Your task to perform on an android device: change keyboard looks Image 0: 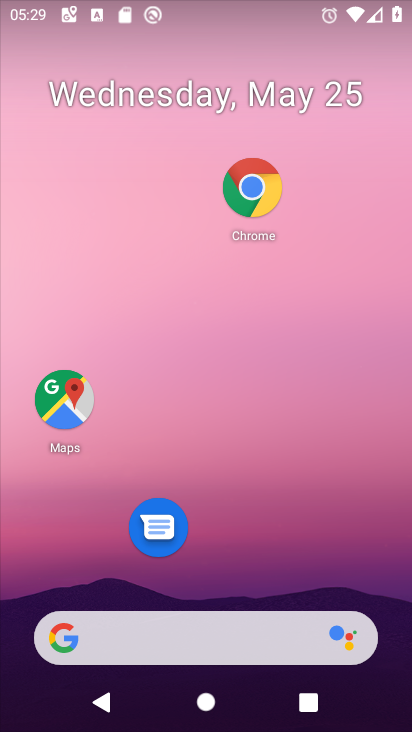
Step 0: drag from (311, 569) to (244, 85)
Your task to perform on an android device: change keyboard looks Image 1: 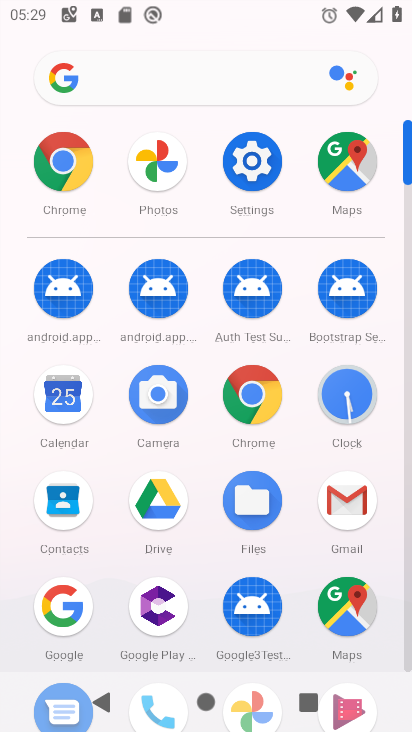
Step 1: click (236, 172)
Your task to perform on an android device: change keyboard looks Image 2: 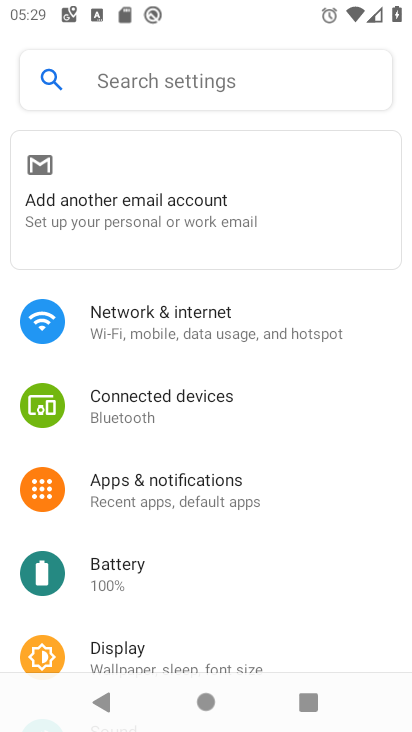
Step 2: drag from (284, 611) to (227, 56)
Your task to perform on an android device: change keyboard looks Image 3: 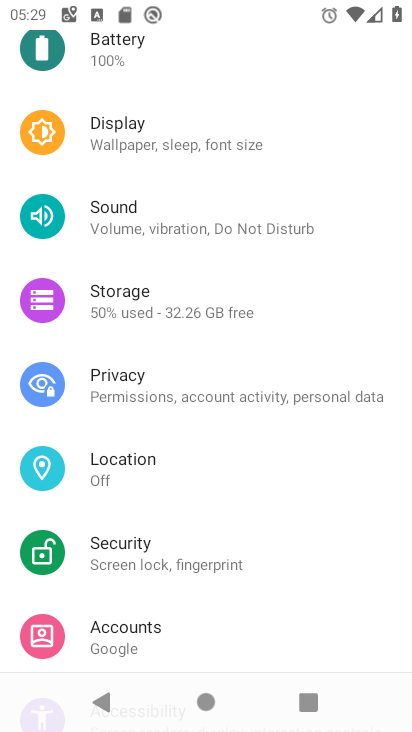
Step 3: drag from (179, 643) to (249, 187)
Your task to perform on an android device: change keyboard looks Image 4: 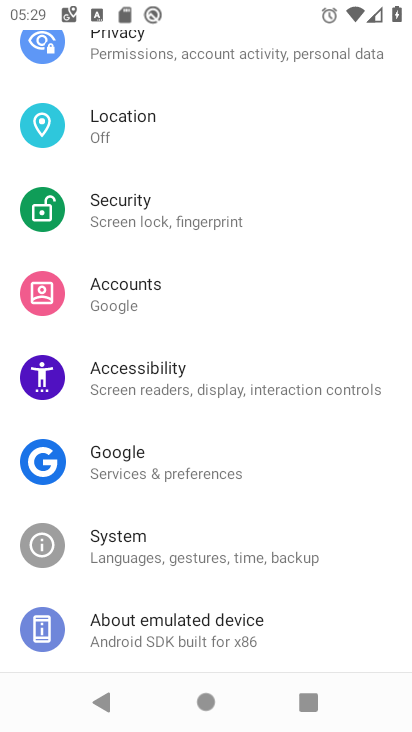
Step 4: click (154, 532)
Your task to perform on an android device: change keyboard looks Image 5: 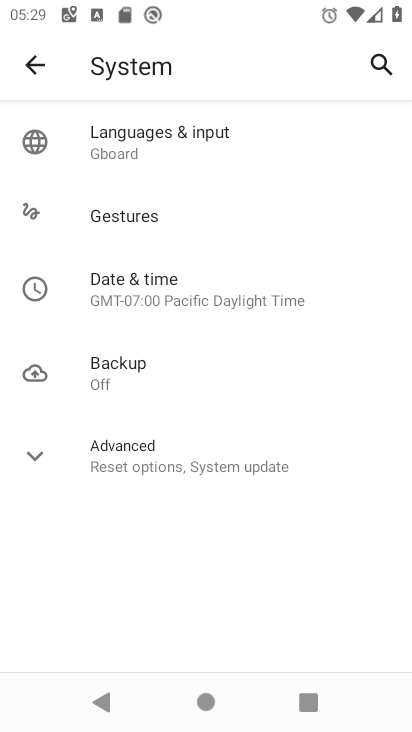
Step 5: click (159, 140)
Your task to perform on an android device: change keyboard looks Image 6: 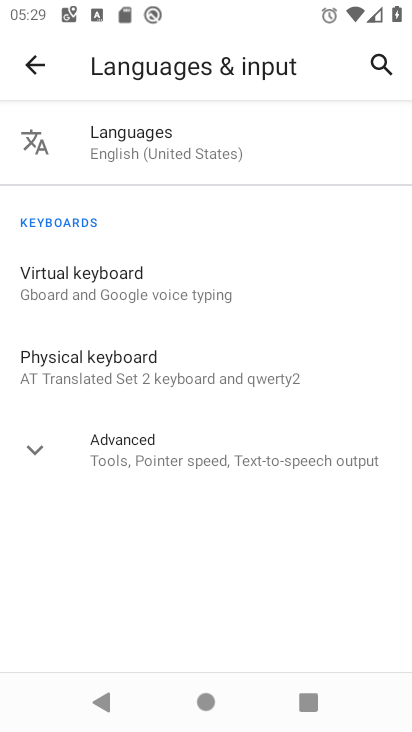
Step 6: click (91, 296)
Your task to perform on an android device: change keyboard looks Image 7: 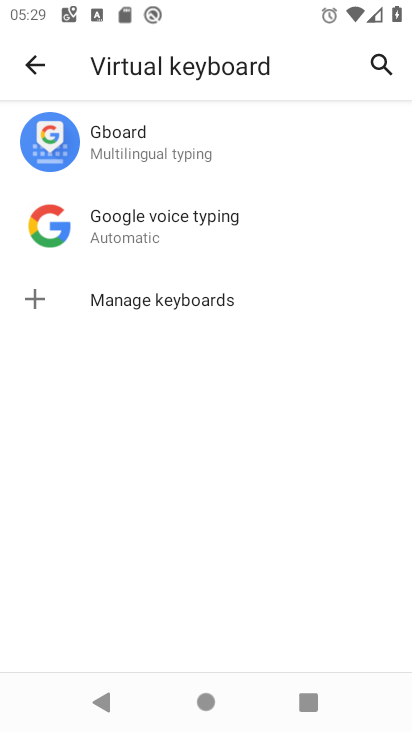
Step 7: click (168, 146)
Your task to perform on an android device: change keyboard looks Image 8: 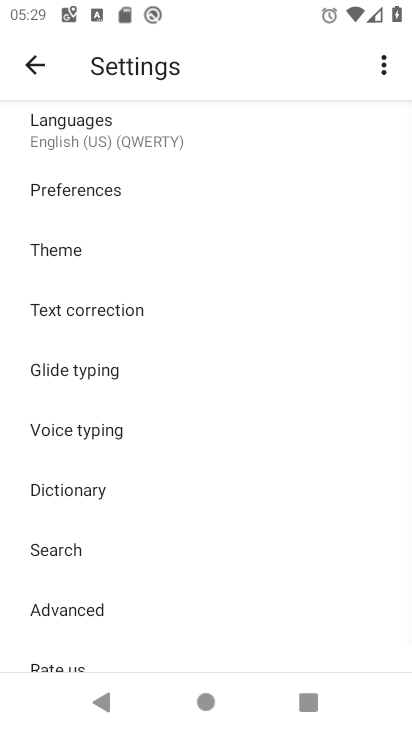
Step 8: click (36, 248)
Your task to perform on an android device: change keyboard looks Image 9: 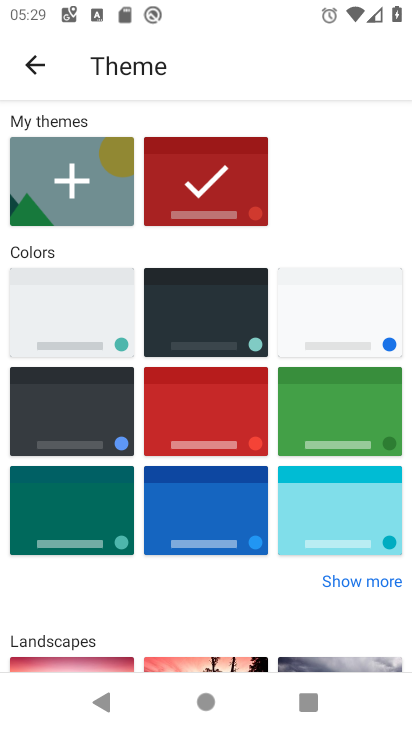
Step 9: click (204, 317)
Your task to perform on an android device: change keyboard looks Image 10: 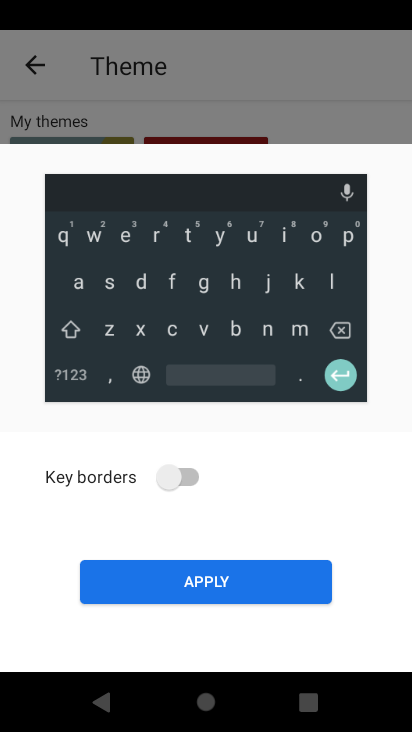
Step 10: click (291, 560)
Your task to perform on an android device: change keyboard looks Image 11: 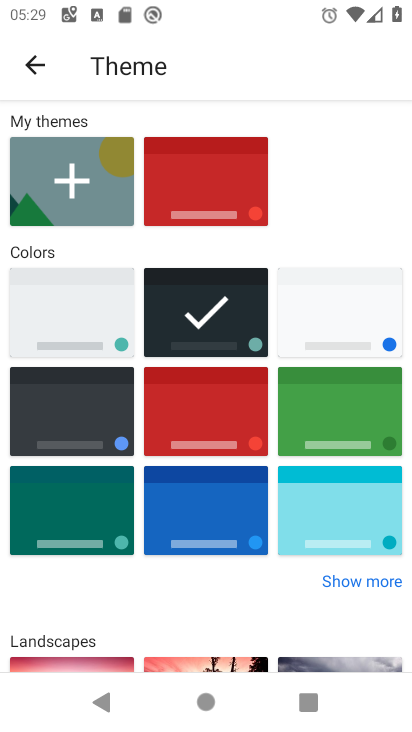
Step 11: task complete